Your task to perform on an android device: allow notifications from all sites in the chrome app Image 0: 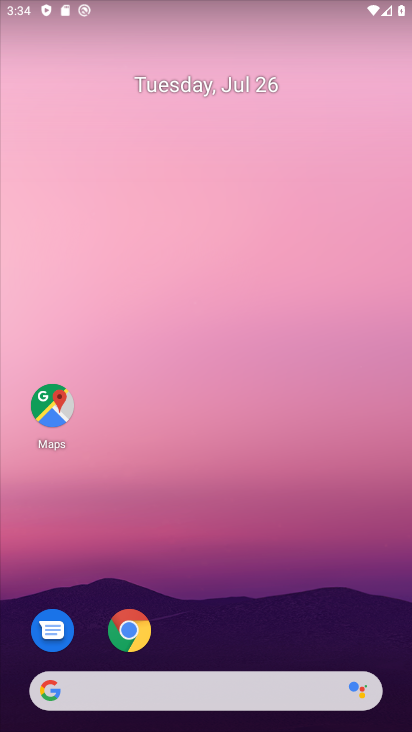
Step 0: drag from (260, 323) to (219, 285)
Your task to perform on an android device: allow notifications from all sites in the chrome app Image 1: 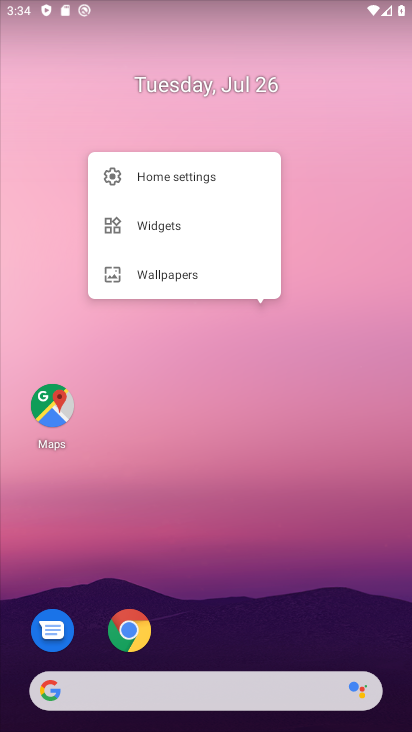
Step 1: drag from (208, 592) to (208, 174)
Your task to perform on an android device: allow notifications from all sites in the chrome app Image 2: 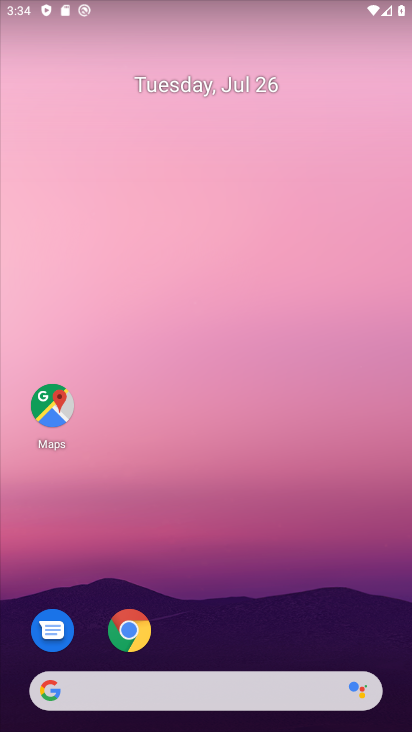
Step 2: drag from (219, 503) to (215, 127)
Your task to perform on an android device: allow notifications from all sites in the chrome app Image 3: 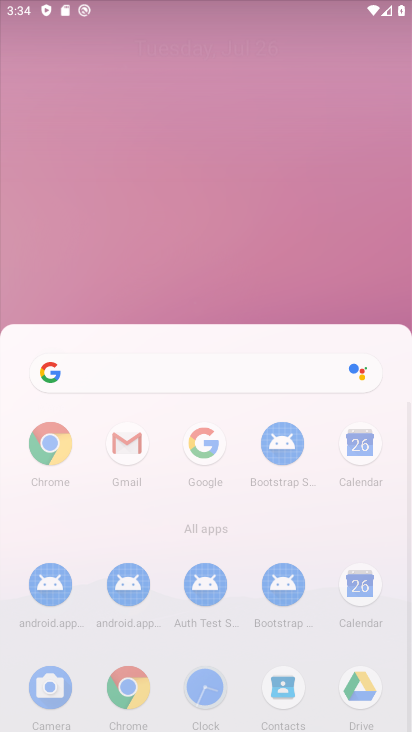
Step 3: drag from (277, 487) to (277, 103)
Your task to perform on an android device: allow notifications from all sites in the chrome app Image 4: 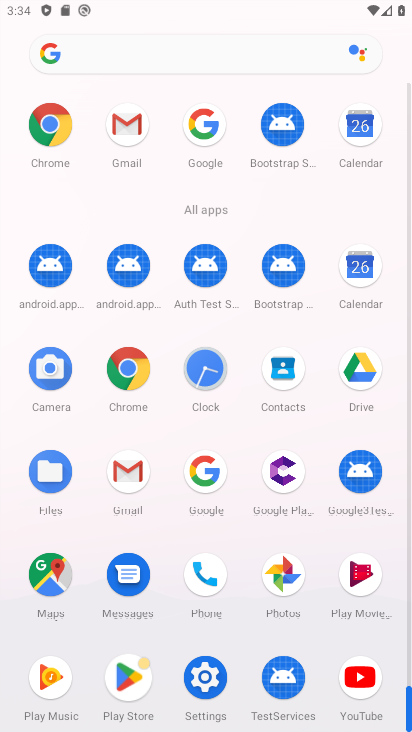
Step 4: drag from (258, 615) to (224, 127)
Your task to perform on an android device: allow notifications from all sites in the chrome app Image 5: 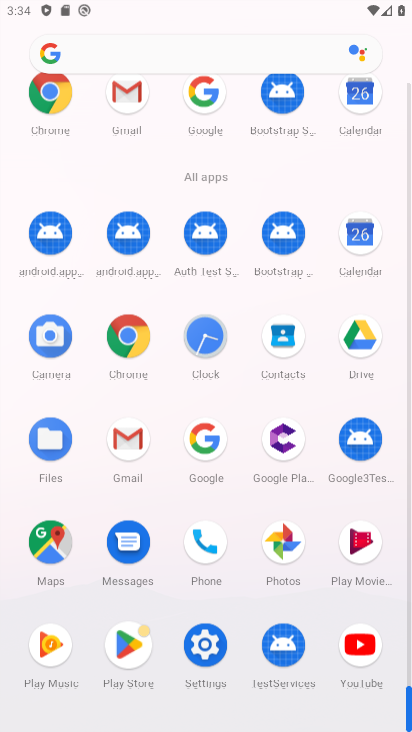
Step 5: drag from (225, 610) to (225, 194)
Your task to perform on an android device: allow notifications from all sites in the chrome app Image 6: 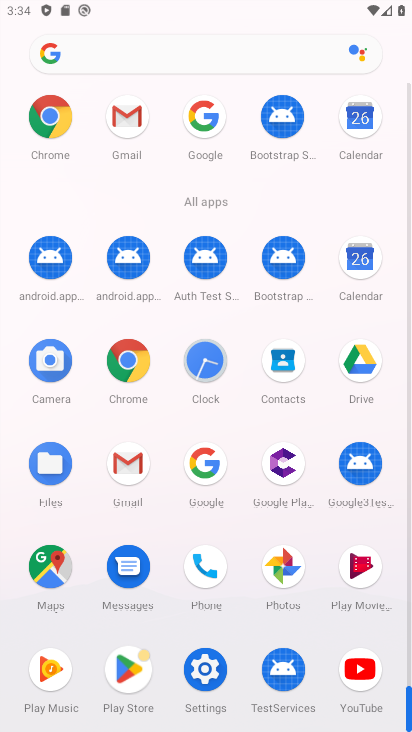
Step 6: click (50, 116)
Your task to perform on an android device: allow notifications from all sites in the chrome app Image 7: 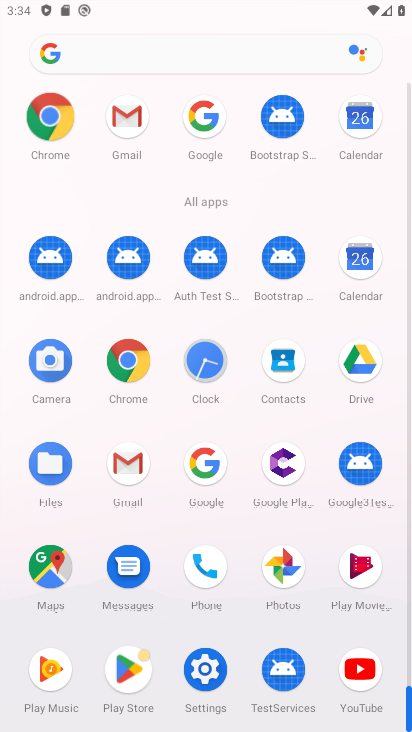
Step 7: click (55, 114)
Your task to perform on an android device: allow notifications from all sites in the chrome app Image 8: 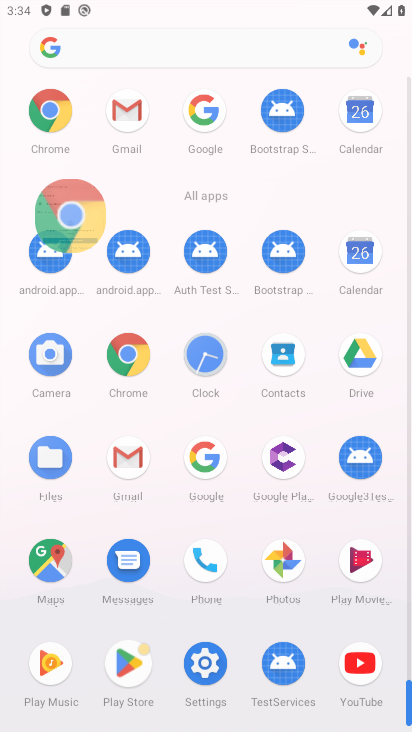
Step 8: click (55, 114)
Your task to perform on an android device: allow notifications from all sites in the chrome app Image 9: 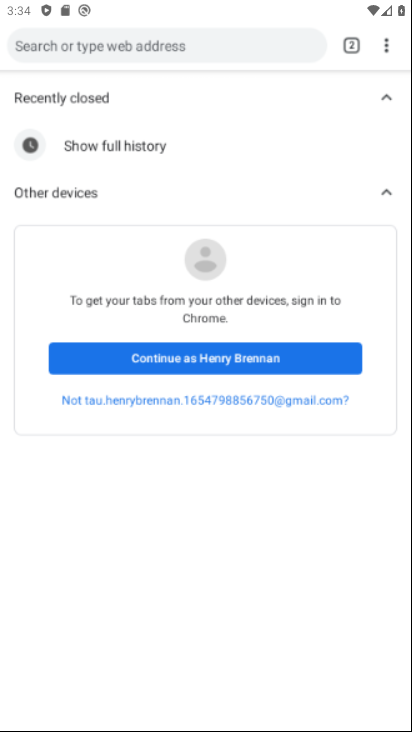
Step 9: click (49, 124)
Your task to perform on an android device: allow notifications from all sites in the chrome app Image 10: 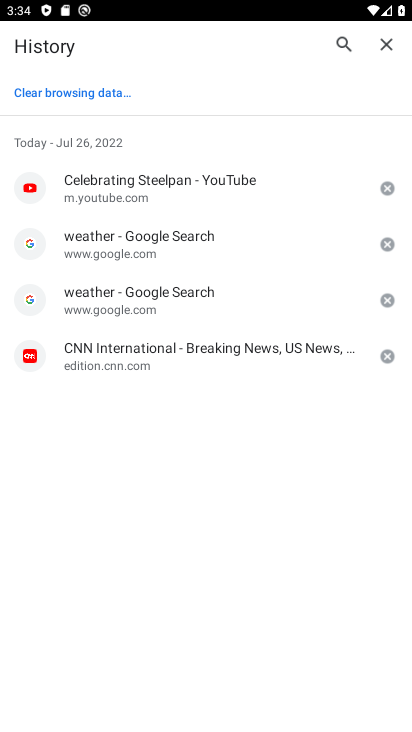
Step 10: click (388, 36)
Your task to perform on an android device: allow notifications from all sites in the chrome app Image 11: 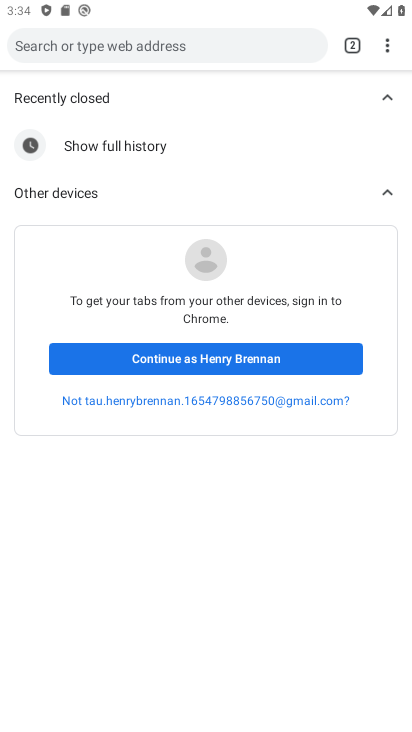
Step 11: drag from (387, 43) to (205, 380)
Your task to perform on an android device: allow notifications from all sites in the chrome app Image 12: 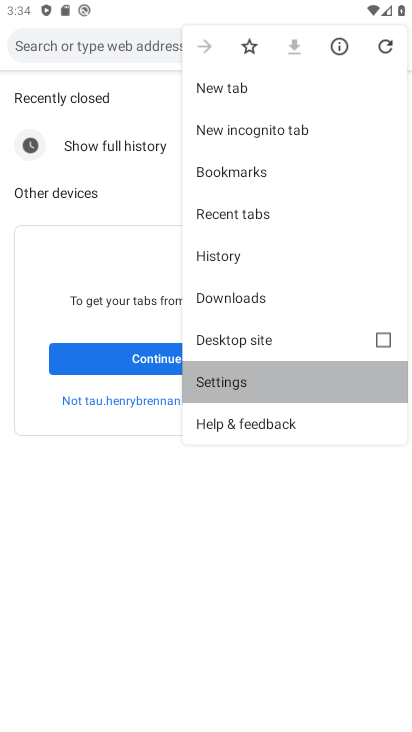
Step 12: click (218, 375)
Your task to perform on an android device: allow notifications from all sites in the chrome app Image 13: 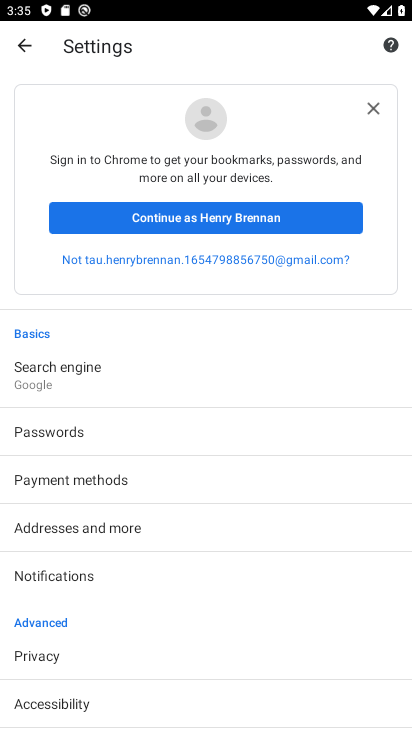
Step 13: drag from (105, 509) to (119, 228)
Your task to perform on an android device: allow notifications from all sites in the chrome app Image 14: 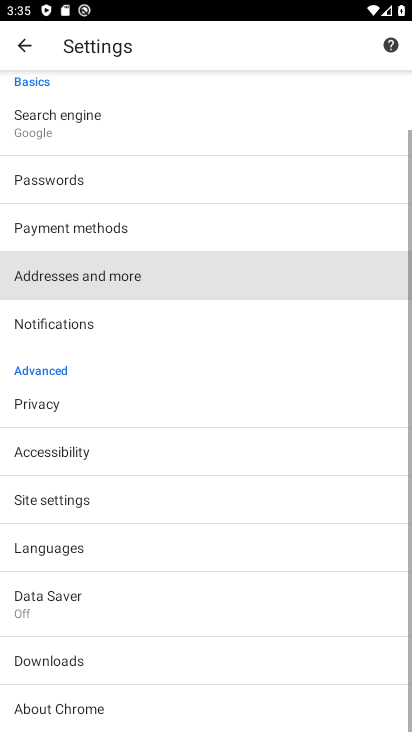
Step 14: drag from (134, 575) to (168, 212)
Your task to perform on an android device: allow notifications from all sites in the chrome app Image 15: 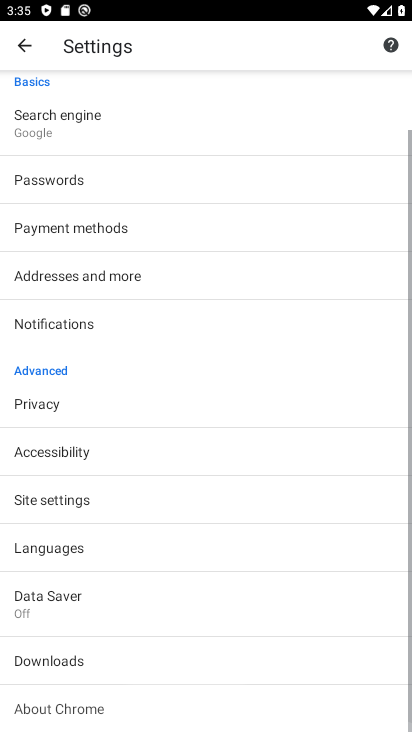
Step 15: drag from (200, 538) to (213, 251)
Your task to perform on an android device: allow notifications from all sites in the chrome app Image 16: 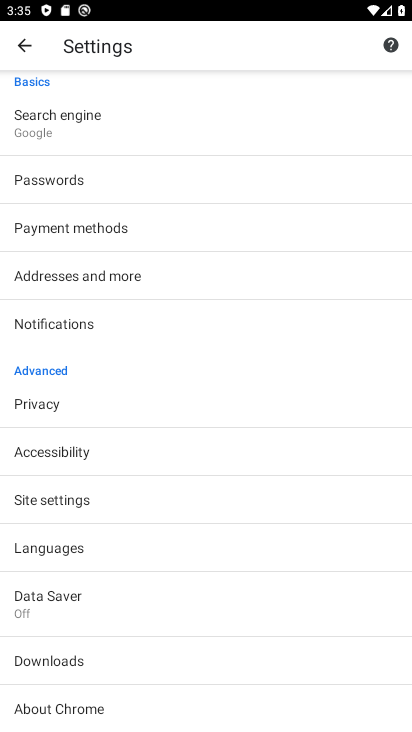
Step 16: click (62, 318)
Your task to perform on an android device: allow notifications from all sites in the chrome app Image 17: 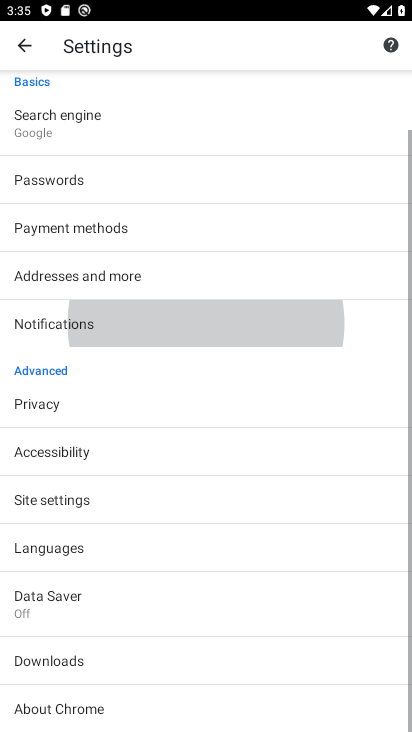
Step 17: click (62, 318)
Your task to perform on an android device: allow notifications from all sites in the chrome app Image 18: 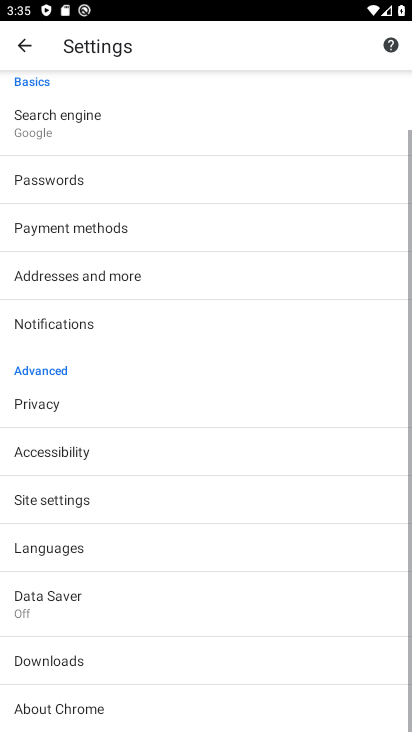
Step 18: click (63, 319)
Your task to perform on an android device: allow notifications from all sites in the chrome app Image 19: 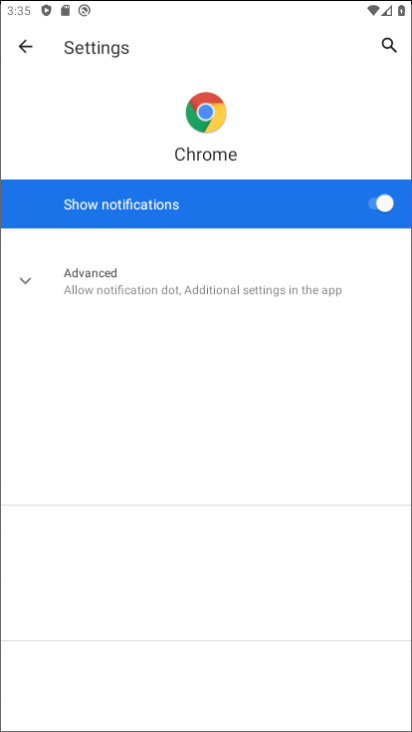
Step 19: click (63, 320)
Your task to perform on an android device: allow notifications from all sites in the chrome app Image 20: 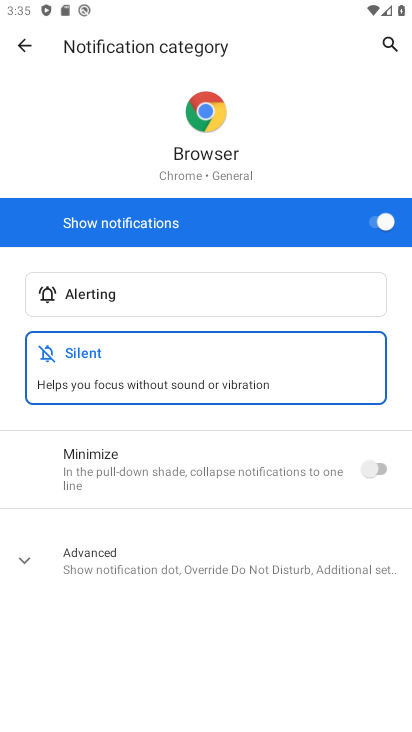
Step 20: click (29, 51)
Your task to perform on an android device: allow notifications from all sites in the chrome app Image 21: 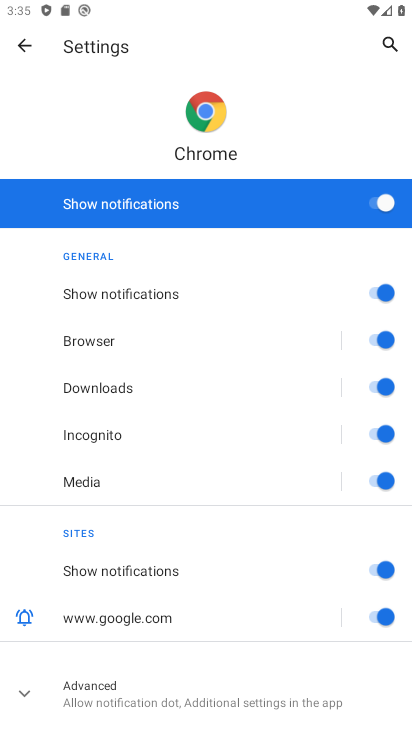
Step 21: task complete